Your task to perform on an android device: Set the phone to "Do not disturb". Image 0: 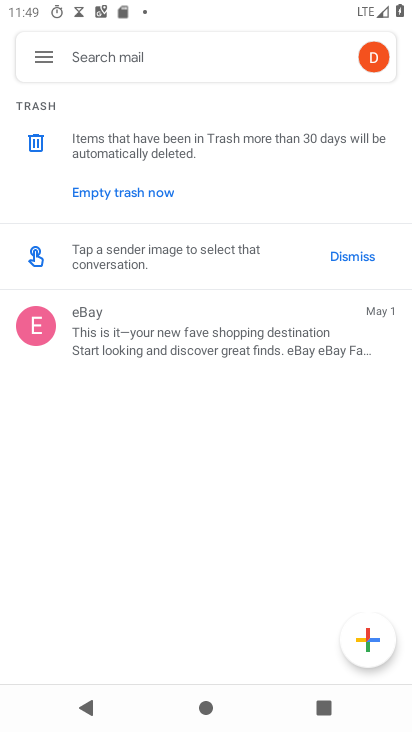
Step 0: press home button
Your task to perform on an android device: Set the phone to "Do not disturb". Image 1: 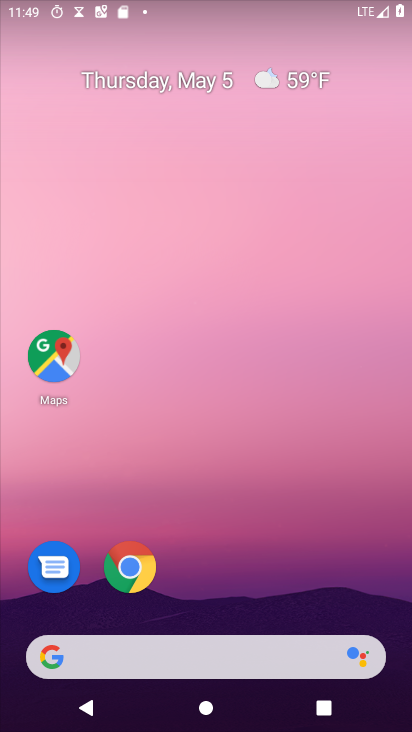
Step 1: drag from (256, 564) to (271, 18)
Your task to perform on an android device: Set the phone to "Do not disturb". Image 2: 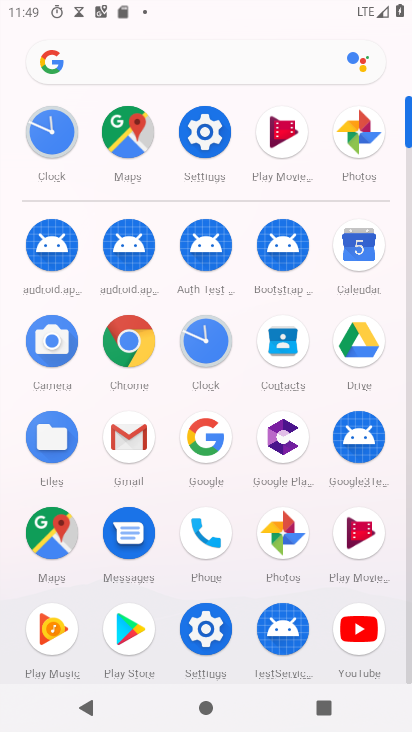
Step 2: click (210, 150)
Your task to perform on an android device: Set the phone to "Do not disturb". Image 3: 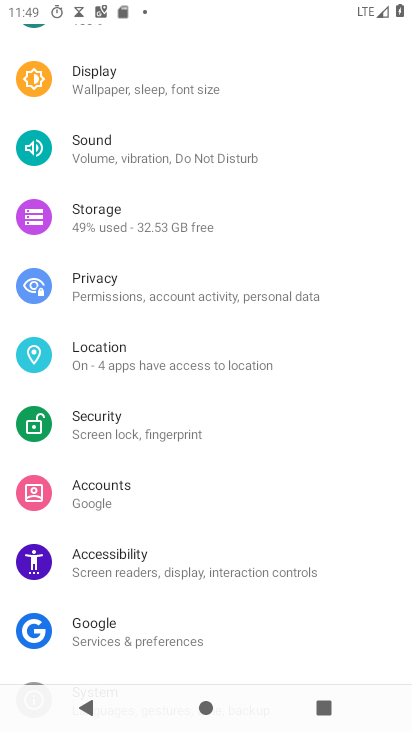
Step 3: click (96, 161)
Your task to perform on an android device: Set the phone to "Do not disturb". Image 4: 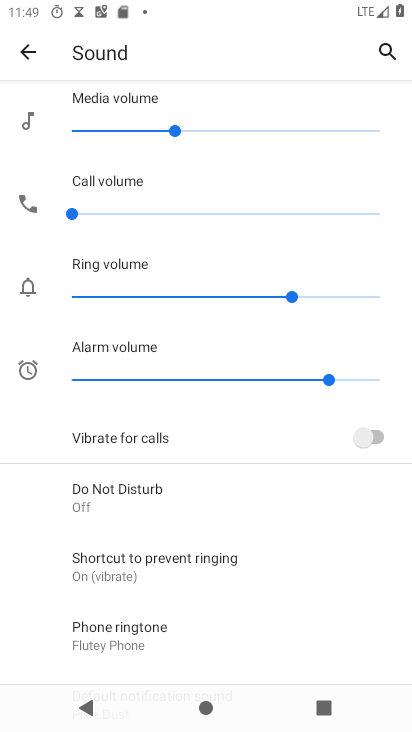
Step 4: click (120, 494)
Your task to perform on an android device: Set the phone to "Do not disturb". Image 5: 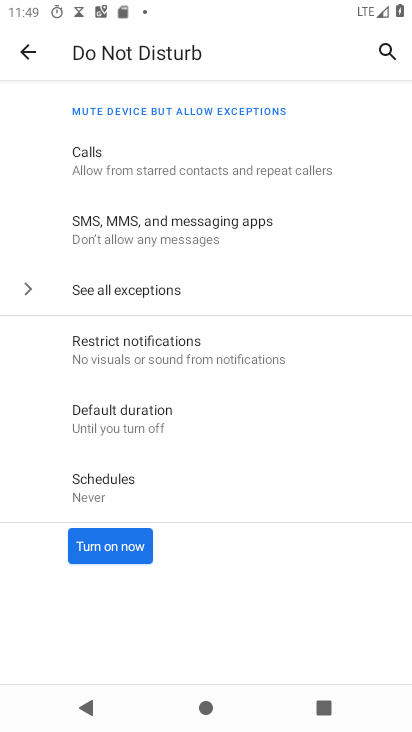
Step 5: click (86, 556)
Your task to perform on an android device: Set the phone to "Do not disturb". Image 6: 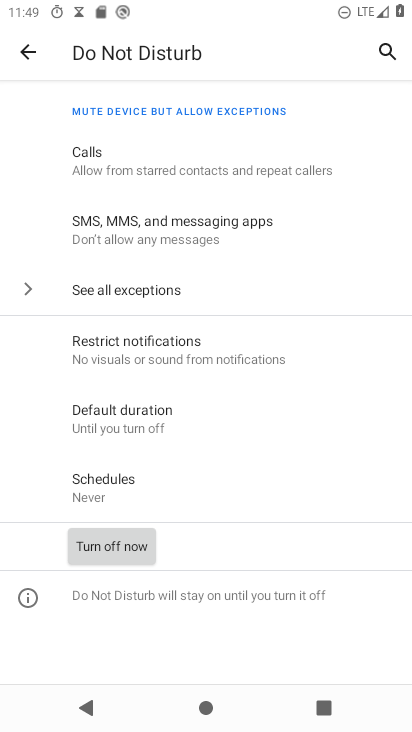
Step 6: task complete